Your task to perform on an android device: refresh tabs in the chrome app Image 0: 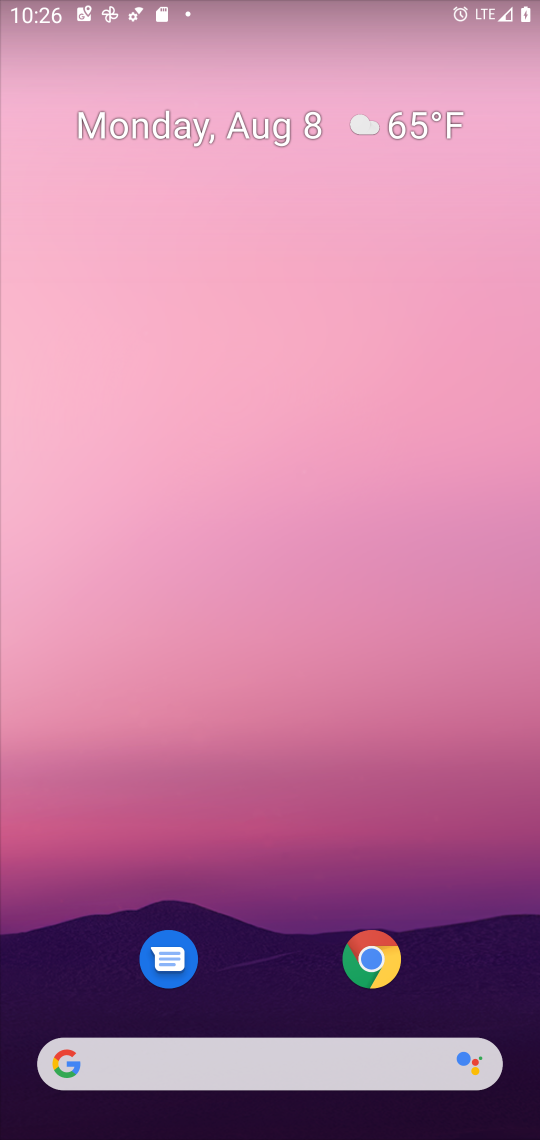
Step 0: drag from (516, 946) to (302, 62)
Your task to perform on an android device: refresh tabs in the chrome app Image 1: 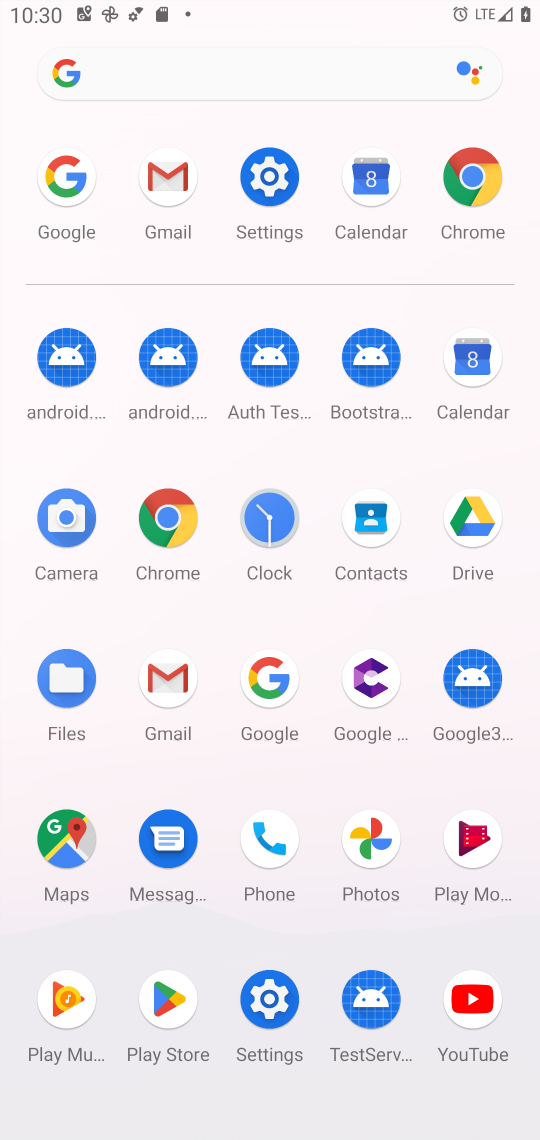
Step 1: click (185, 519)
Your task to perform on an android device: refresh tabs in the chrome app Image 2: 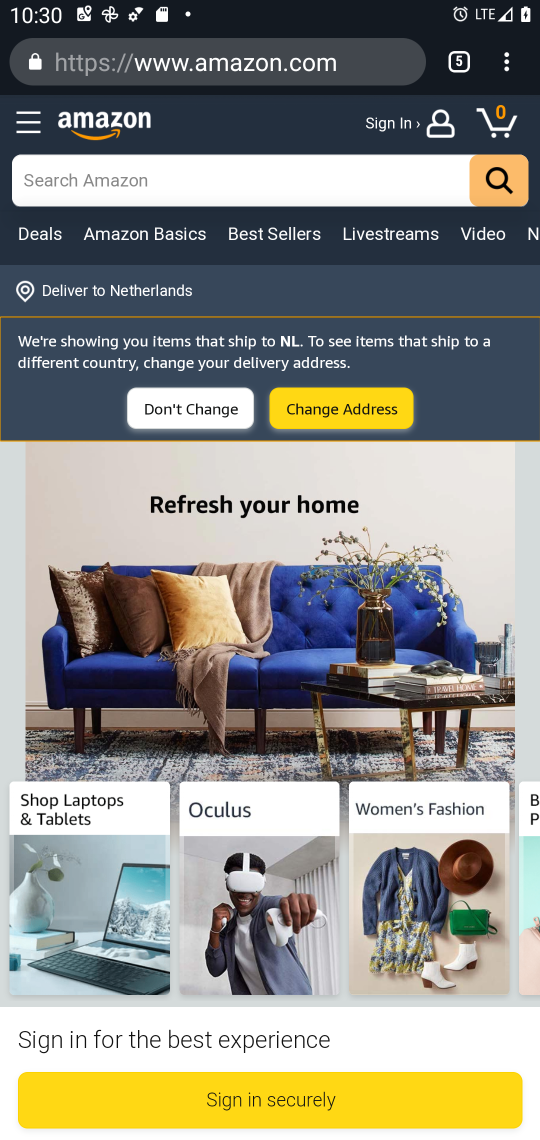
Step 2: click (510, 56)
Your task to perform on an android device: refresh tabs in the chrome app Image 3: 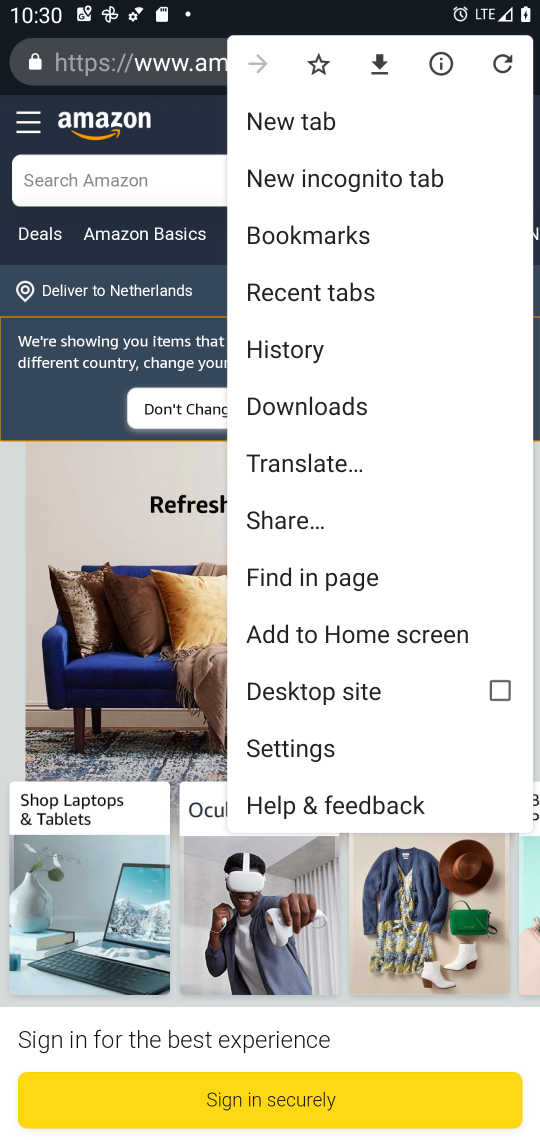
Step 3: click (299, 132)
Your task to perform on an android device: refresh tabs in the chrome app Image 4: 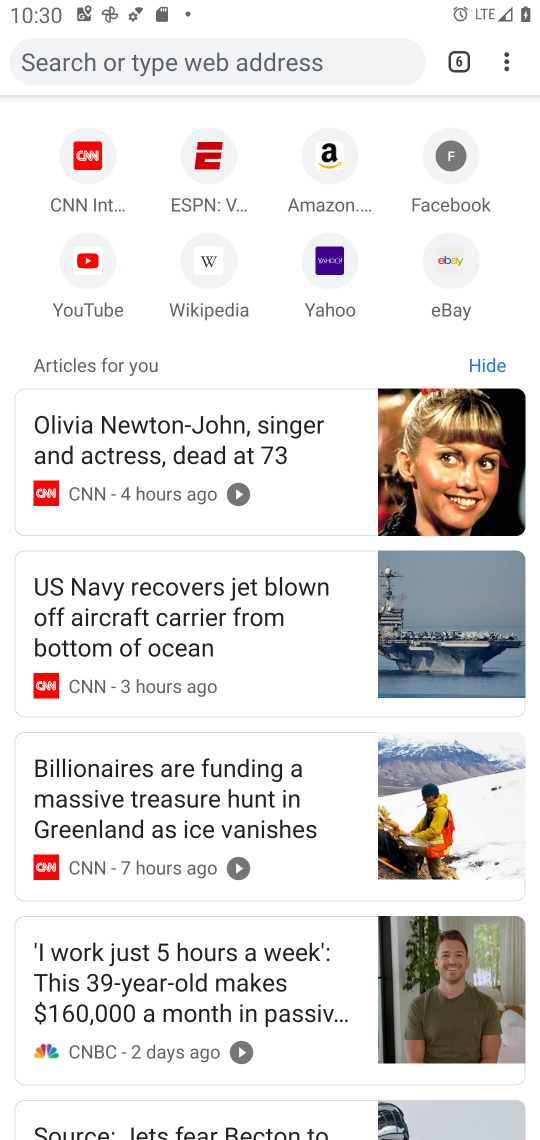
Step 4: task complete